Your task to perform on an android device: toggle javascript in the chrome app Image 0: 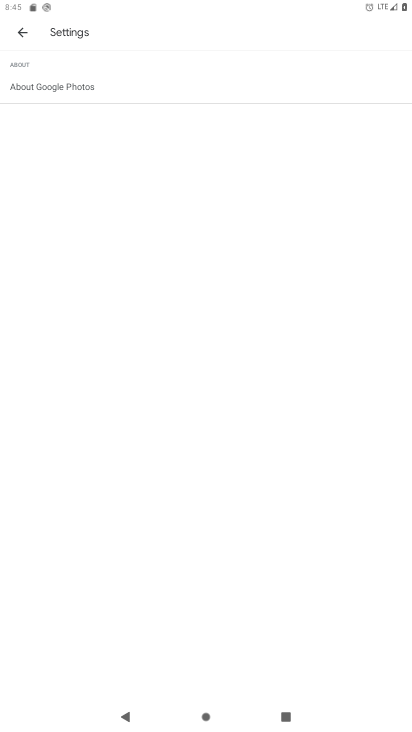
Step 0: press home button
Your task to perform on an android device: toggle javascript in the chrome app Image 1: 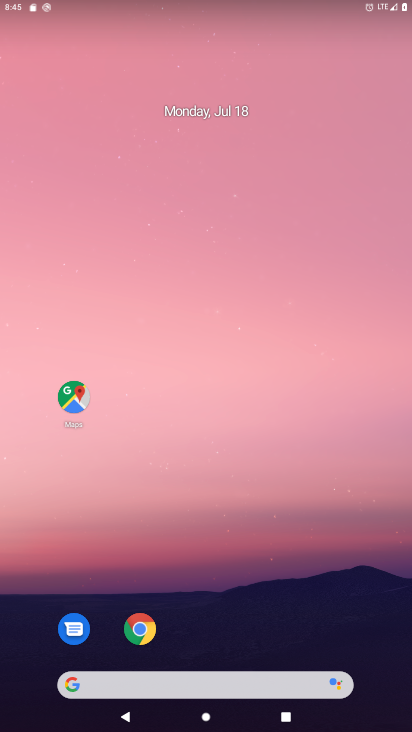
Step 1: drag from (200, 590) to (255, 32)
Your task to perform on an android device: toggle javascript in the chrome app Image 2: 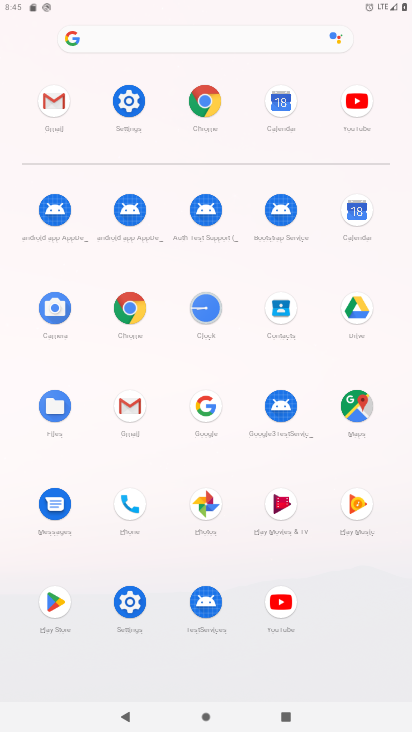
Step 2: click (136, 307)
Your task to perform on an android device: toggle javascript in the chrome app Image 3: 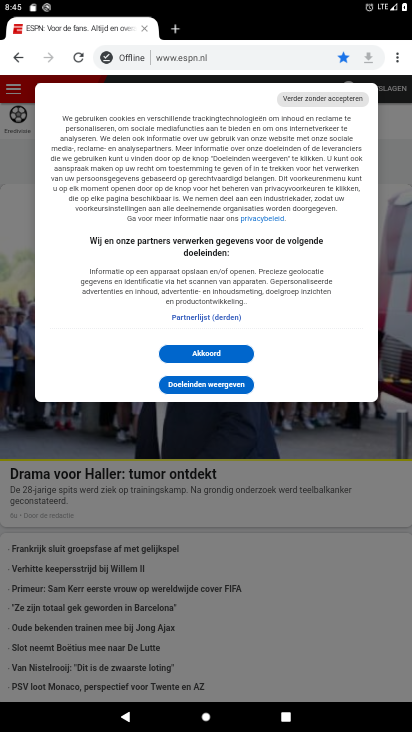
Step 3: click (395, 54)
Your task to perform on an android device: toggle javascript in the chrome app Image 4: 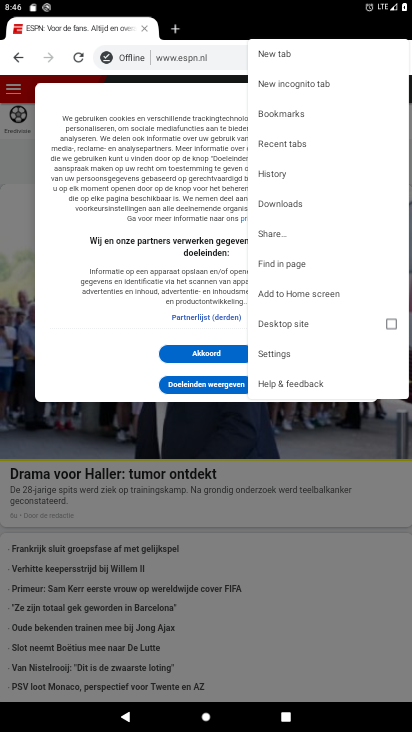
Step 4: click (274, 350)
Your task to perform on an android device: toggle javascript in the chrome app Image 5: 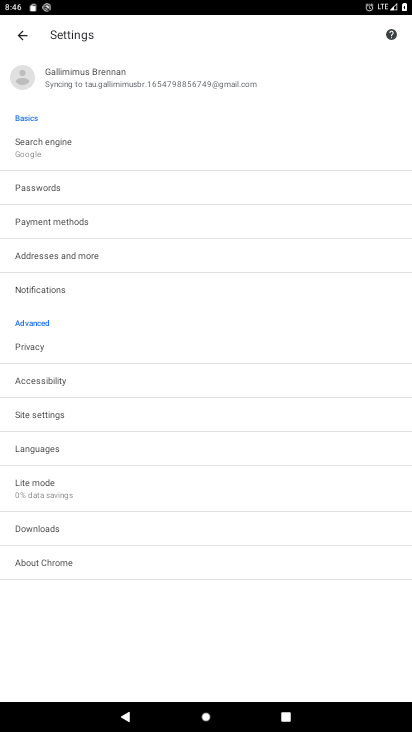
Step 5: drag from (47, 496) to (37, 684)
Your task to perform on an android device: toggle javascript in the chrome app Image 6: 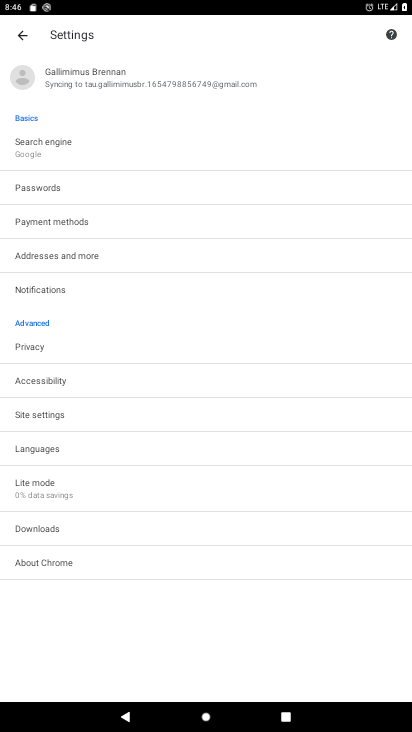
Step 6: click (48, 411)
Your task to perform on an android device: toggle javascript in the chrome app Image 7: 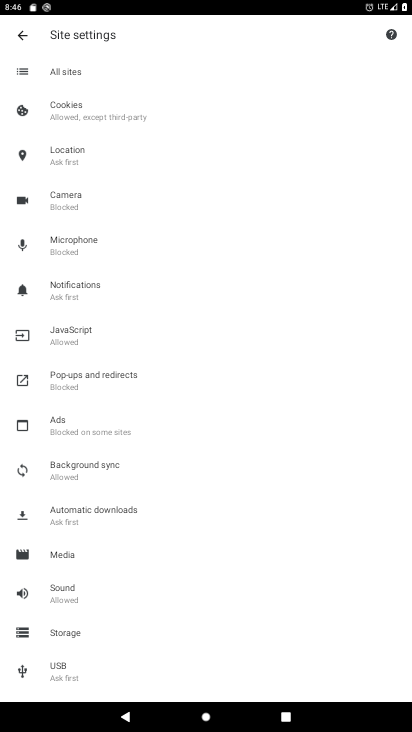
Step 7: click (77, 341)
Your task to perform on an android device: toggle javascript in the chrome app Image 8: 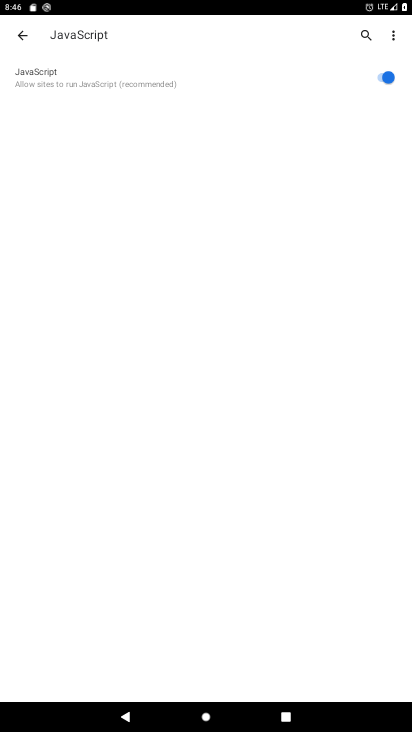
Step 8: click (362, 76)
Your task to perform on an android device: toggle javascript in the chrome app Image 9: 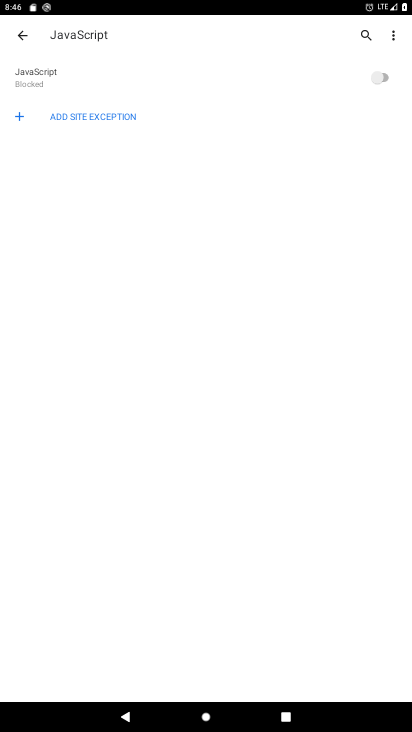
Step 9: task complete